Your task to perform on an android device: When is my next appointment? Image 0: 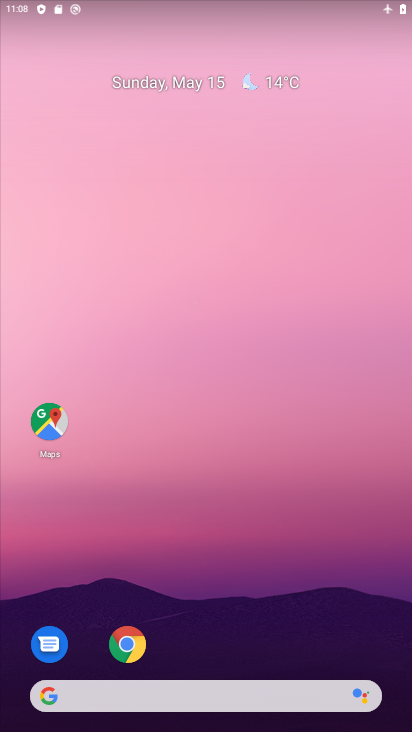
Step 0: drag from (246, 517) to (203, 296)
Your task to perform on an android device: When is my next appointment? Image 1: 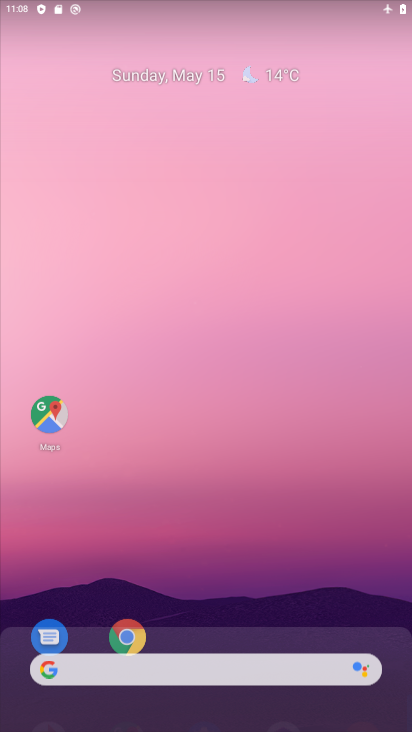
Step 1: click (132, 110)
Your task to perform on an android device: When is my next appointment? Image 2: 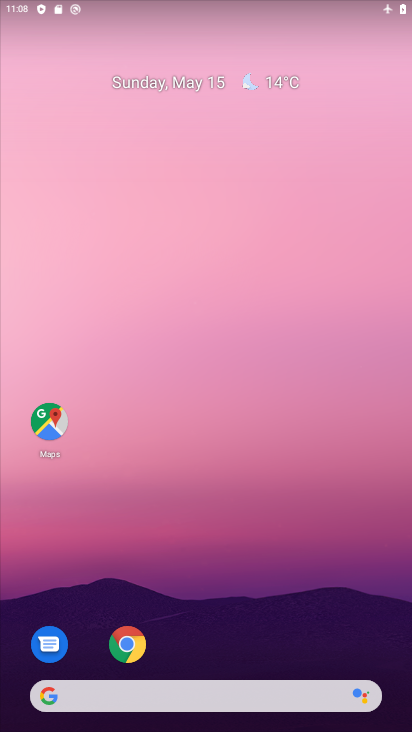
Step 2: drag from (209, 577) to (42, 54)
Your task to perform on an android device: When is my next appointment? Image 3: 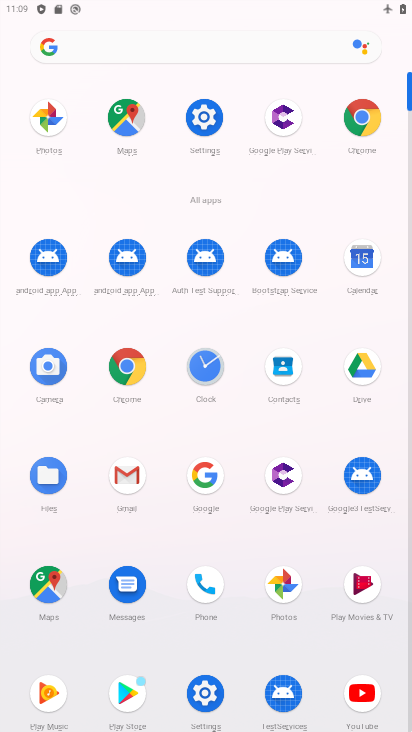
Step 3: click (364, 259)
Your task to perform on an android device: When is my next appointment? Image 4: 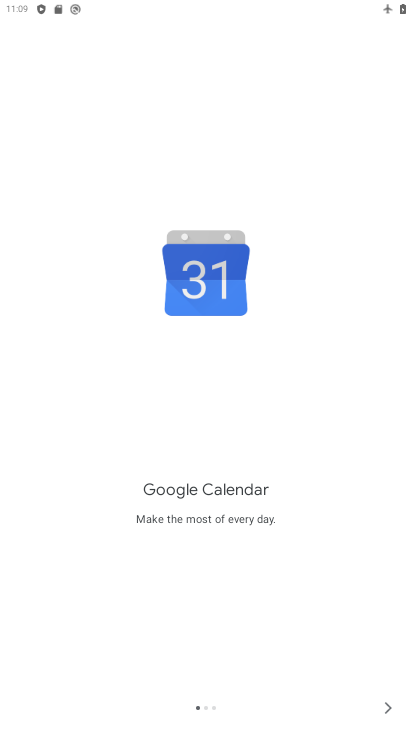
Step 4: click (387, 708)
Your task to perform on an android device: When is my next appointment? Image 5: 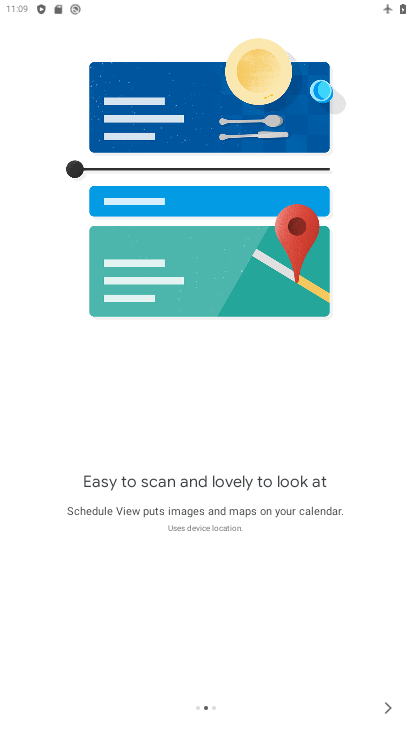
Step 5: click (390, 704)
Your task to perform on an android device: When is my next appointment? Image 6: 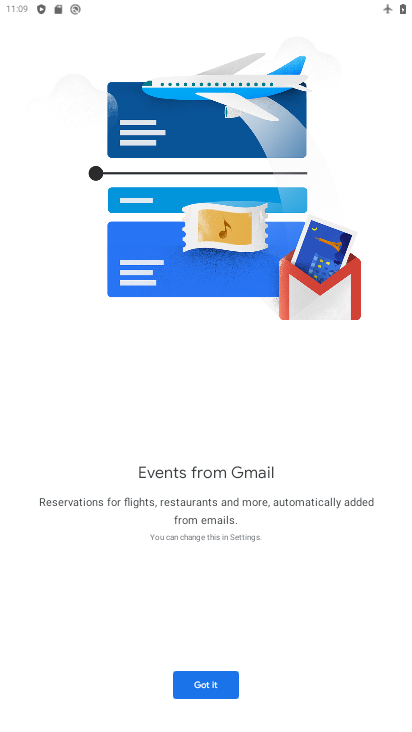
Step 6: click (208, 694)
Your task to perform on an android device: When is my next appointment? Image 7: 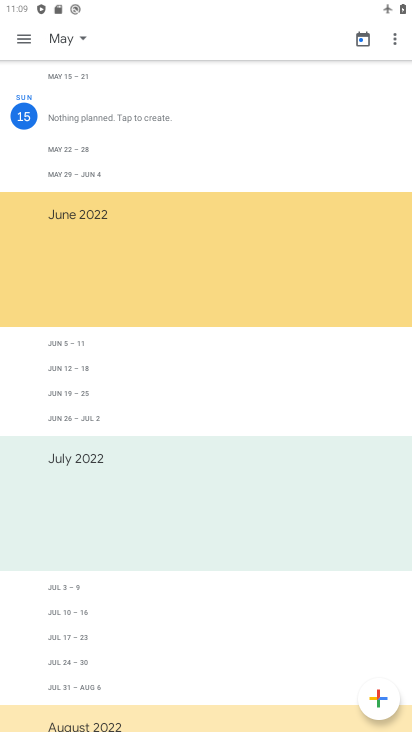
Step 7: click (20, 44)
Your task to perform on an android device: When is my next appointment? Image 8: 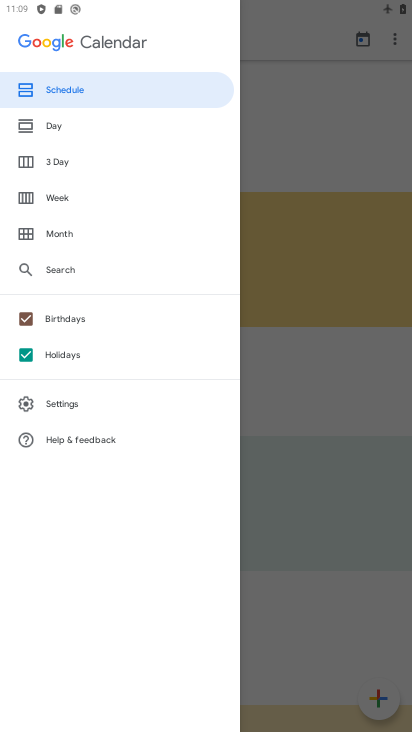
Step 8: click (51, 90)
Your task to perform on an android device: When is my next appointment? Image 9: 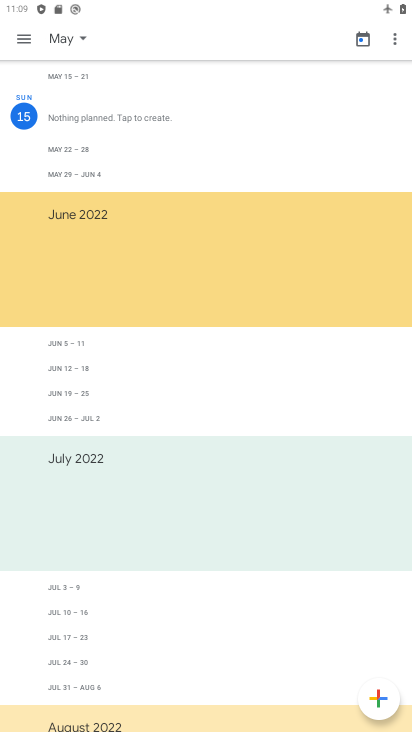
Step 9: click (72, 35)
Your task to perform on an android device: When is my next appointment? Image 10: 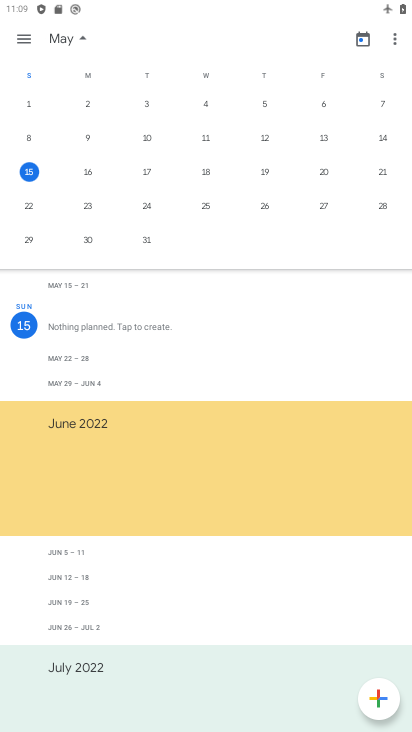
Step 10: drag from (278, 167) to (221, 165)
Your task to perform on an android device: When is my next appointment? Image 11: 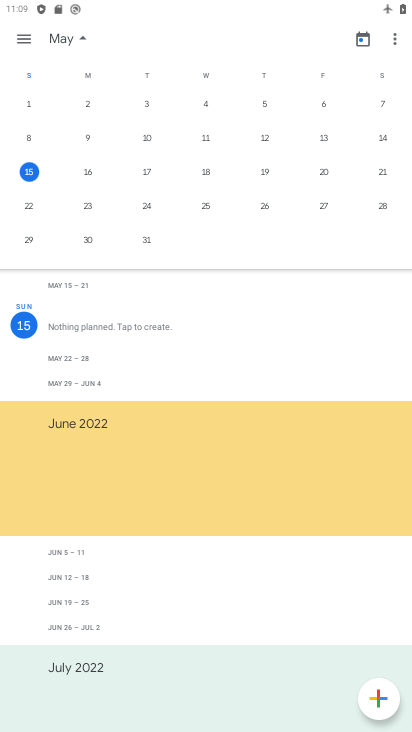
Step 11: click (34, 174)
Your task to perform on an android device: When is my next appointment? Image 12: 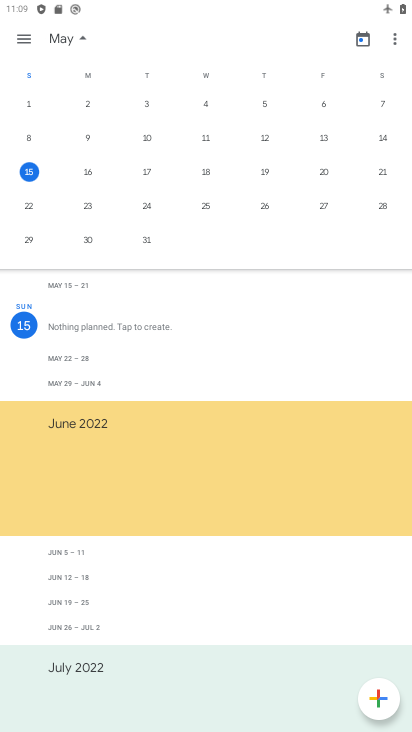
Step 12: task complete